Your task to perform on an android device: Is it going to rain tomorrow? Image 0: 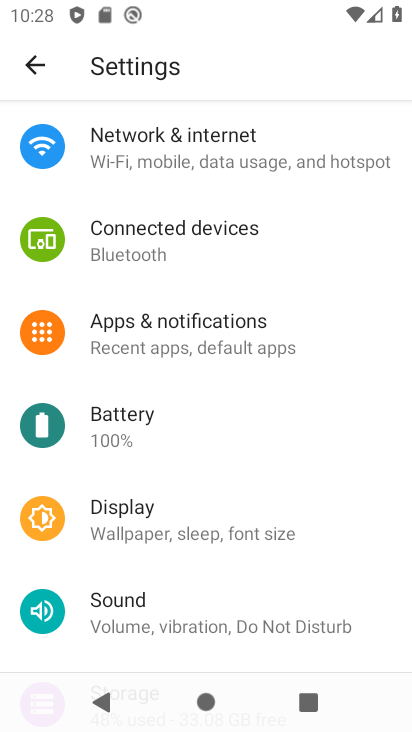
Step 0: press home button
Your task to perform on an android device: Is it going to rain tomorrow? Image 1: 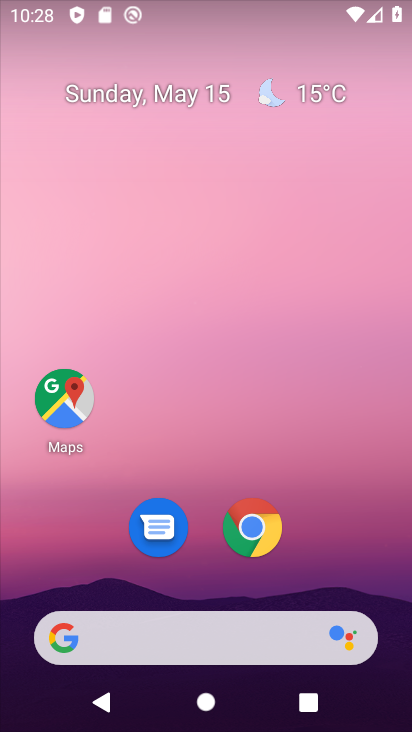
Step 1: click (172, 641)
Your task to perform on an android device: Is it going to rain tomorrow? Image 2: 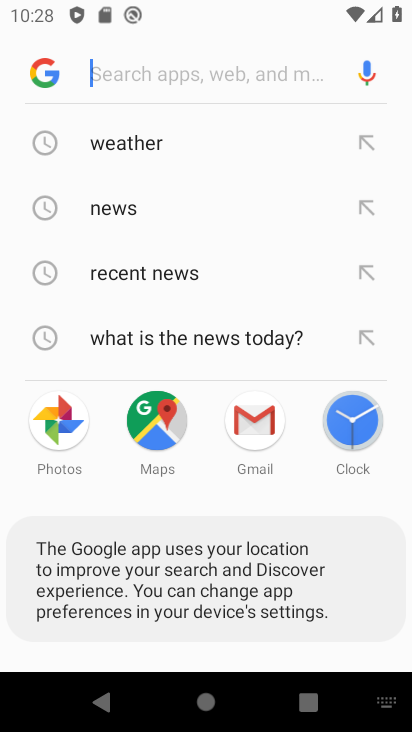
Step 2: click (138, 150)
Your task to perform on an android device: Is it going to rain tomorrow? Image 3: 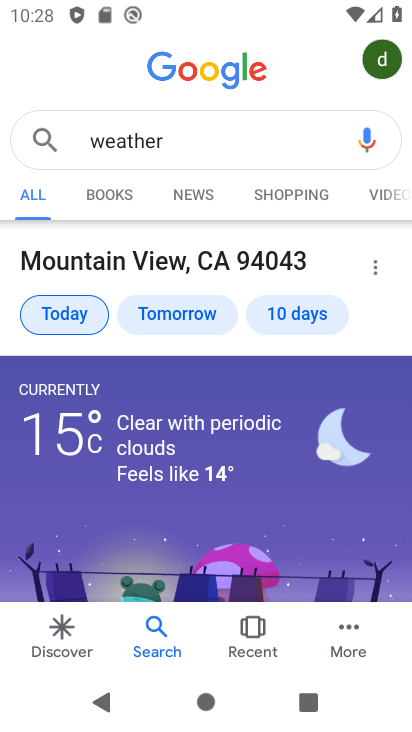
Step 3: click (174, 326)
Your task to perform on an android device: Is it going to rain tomorrow? Image 4: 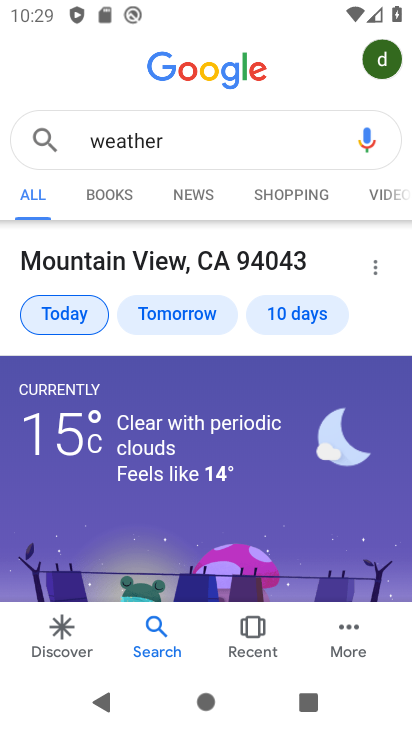
Step 4: click (175, 307)
Your task to perform on an android device: Is it going to rain tomorrow? Image 5: 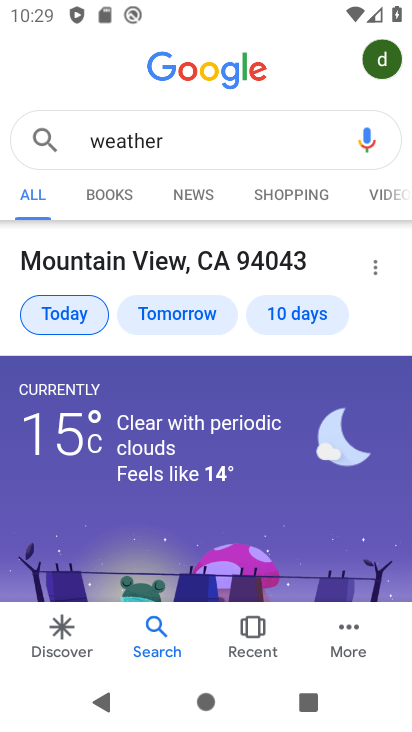
Step 5: click (170, 320)
Your task to perform on an android device: Is it going to rain tomorrow? Image 6: 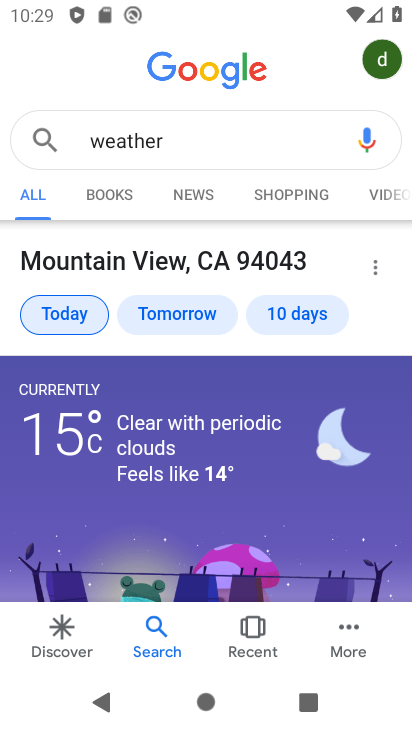
Step 6: click (171, 313)
Your task to perform on an android device: Is it going to rain tomorrow? Image 7: 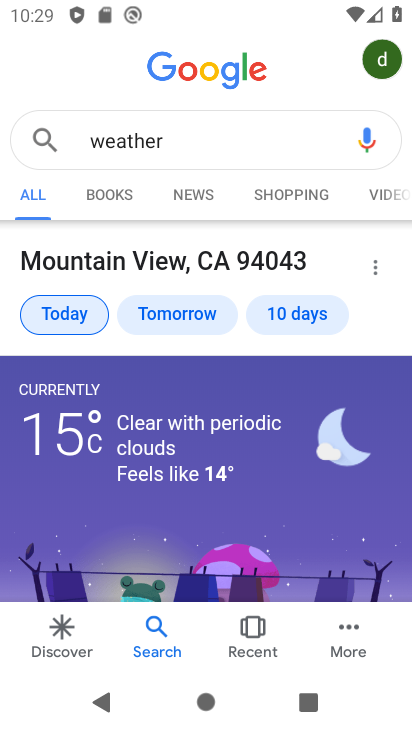
Step 7: click (171, 313)
Your task to perform on an android device: Is it going to rain tomorrow? Image 8: 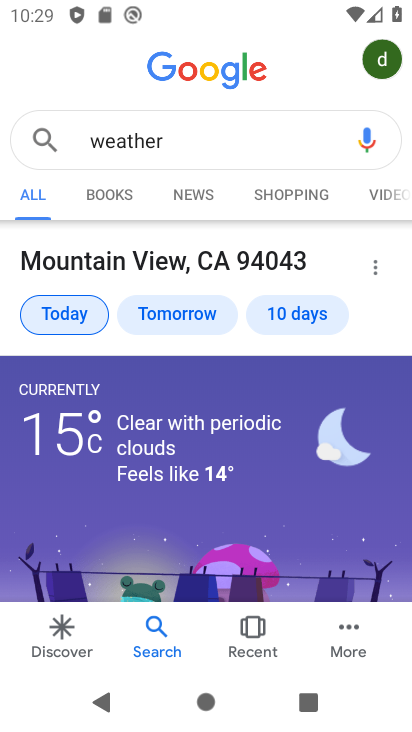
Step 8: click (171, 313)
Your task to perform on an android device: Is it going to rain tomorrow? Image 9: 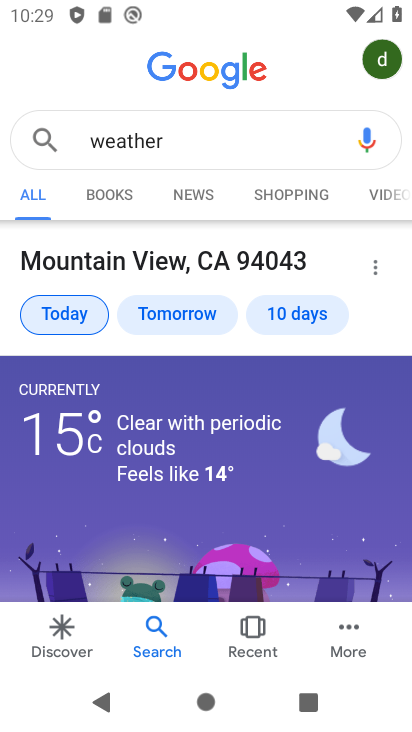
Step 9: click (171, 313)
Your task to perform on an android device: Is it going to rain tomorrow? Image 10: 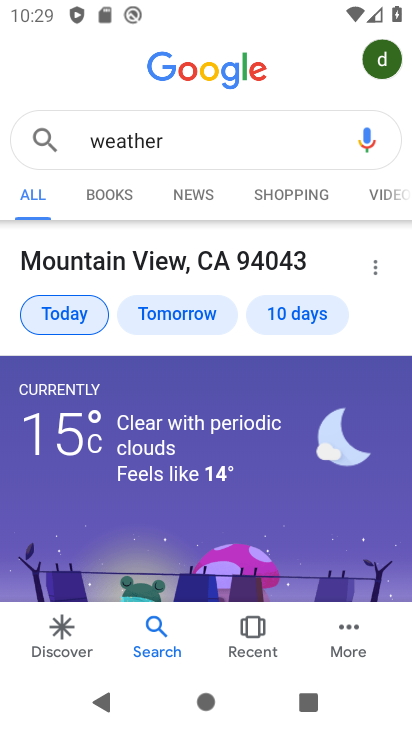
Step 10: click (171, 313)
Your task to perform on an android device: Is it going to rain tomorrow? Image 11: 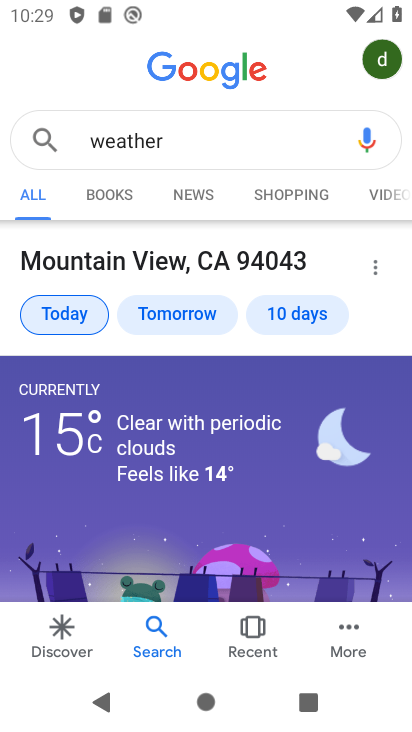
Step 11: click (171, 313)
Your task to perform on an android device: Is it going to rain tomorrow? Image 12: 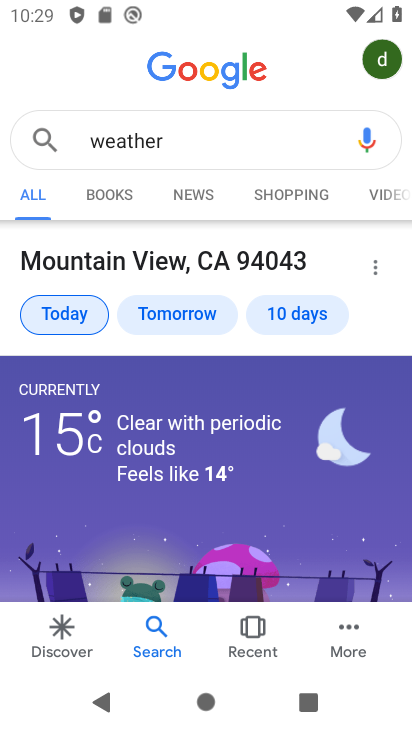
Step 12: click (171, 313)
Your task to perform on an android device: Is it going to rain tomorrow? Image 13: 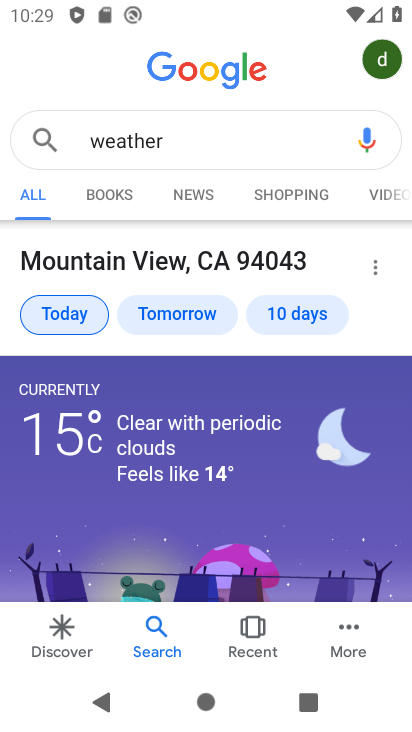
Step 13: click (171, 313)
Your task to perform on an android device: Is it going to rain tomorrow? Image 14: 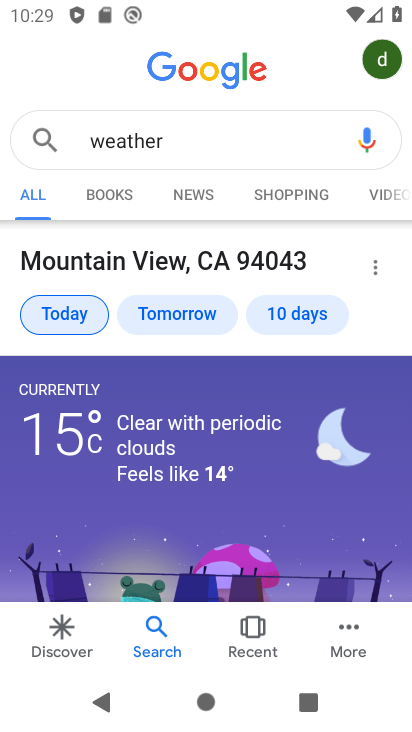
Step 14: click (171, 313)
Your task to perform on an android device: Is it going to rain tomorrow? Image 15: 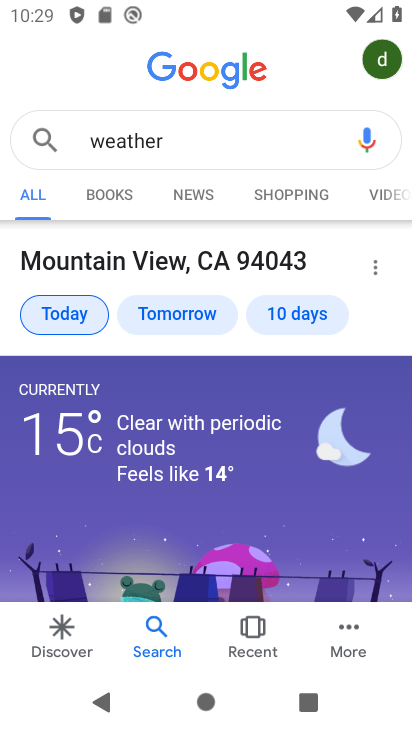
Step 15: click (171, 313)
Your task to perform on an android device: Is it going to rain tomorrow? Image 16: 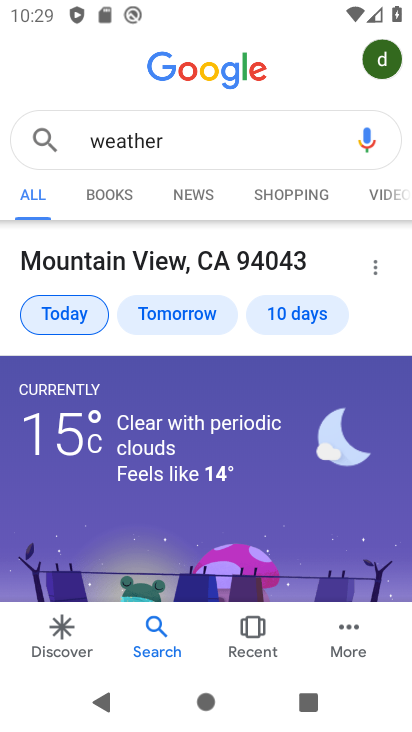
Step 16: click (262, 313)
Your task to perform on an android device: Is it going to rain tomorrow? Image 17: 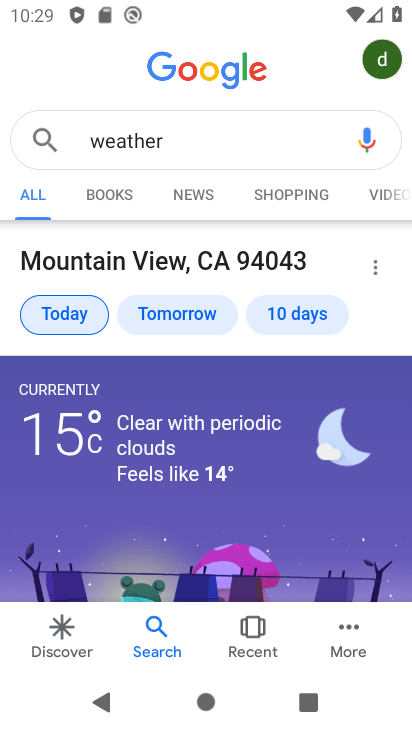
Step 17: click (160, 313)
Your task to perform on an android device: Is it going to rain tomorrow? Image 18: 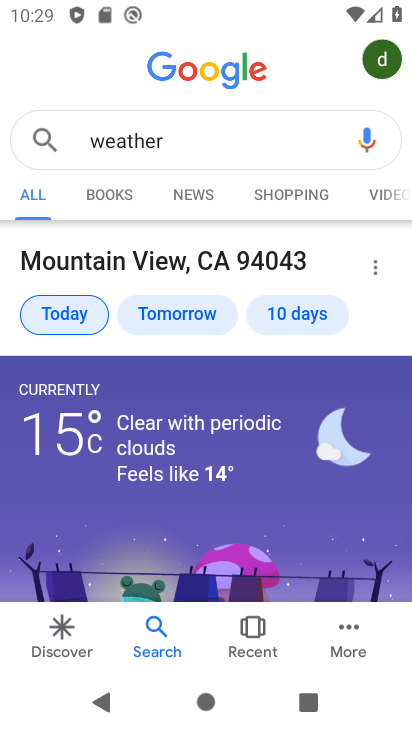
Step 18: click (160, 313)
Your task to perform on an android device: Is it going to rain tomorrow? Image 19: 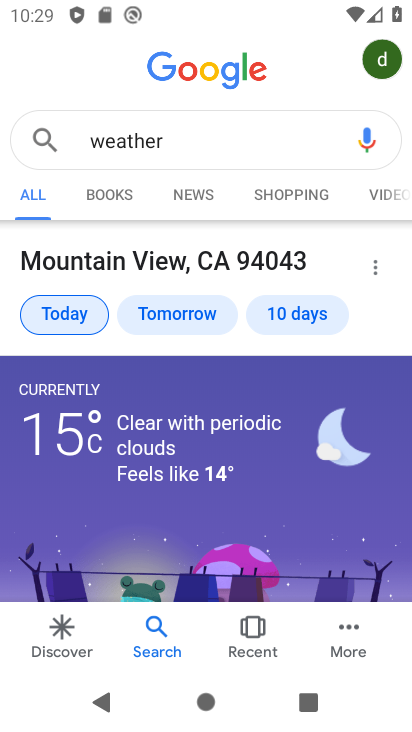
Step 19: task complete